Your task to perform on an android device: Search for pizza restaurants on Maps Image 0: 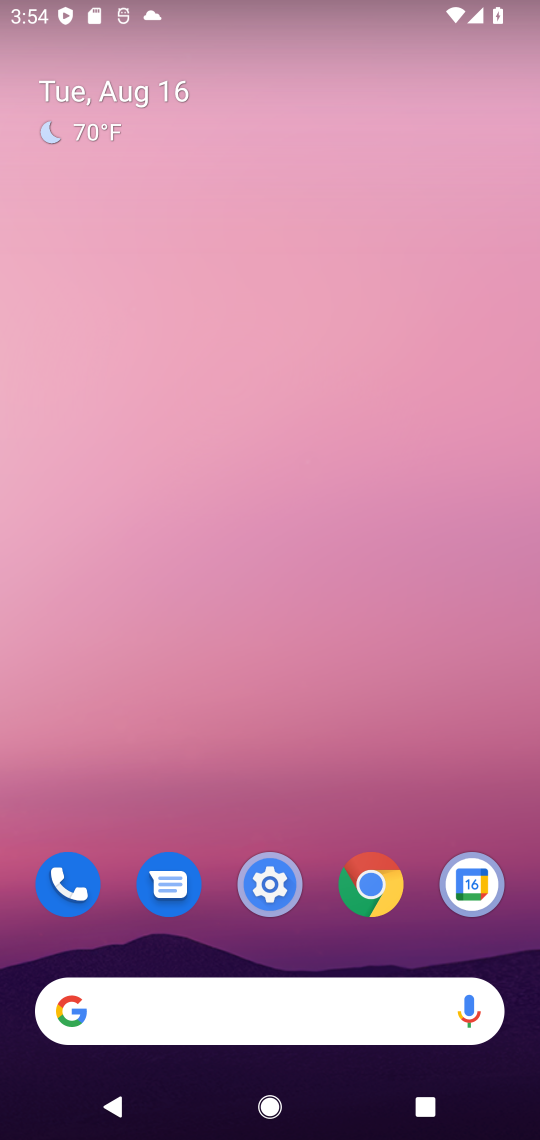
Step 0: drag from (297, 823) to (260, 254)
Your task to perform on an android device: Search for pizza restaurants on Maps Image 1: 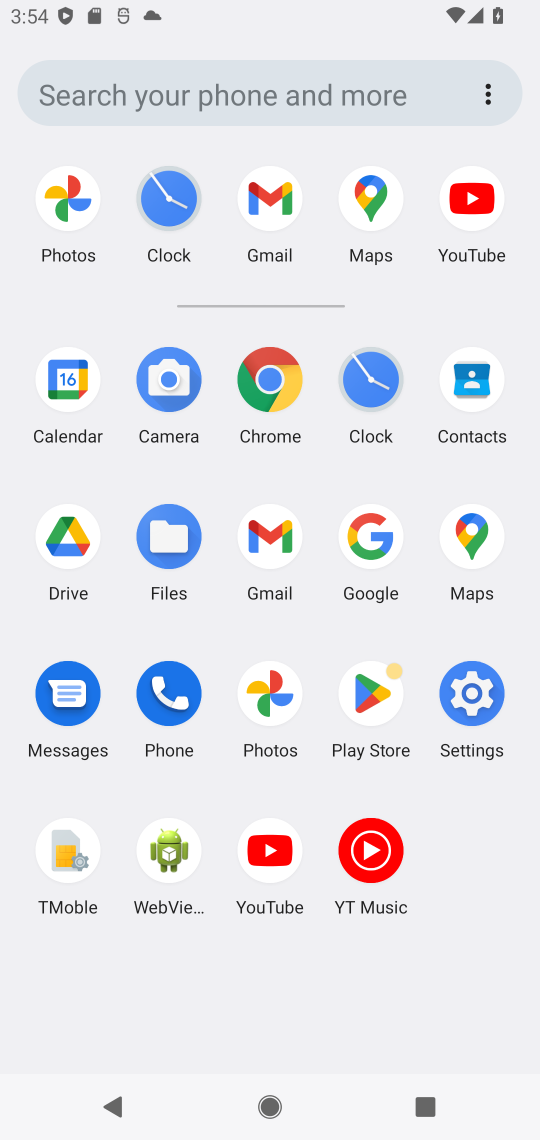
Step 1: click (375, 211)
Your task to perform on an android device: Search for pizza restaurants on Maps Image 2: 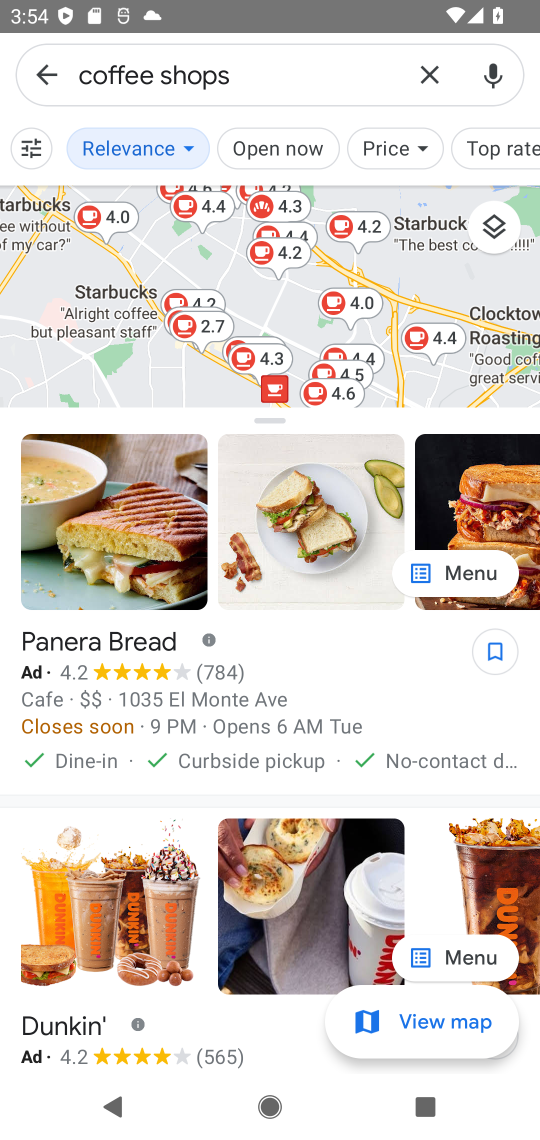
Step 2: click (421, 72)
Your task to perform on an android device: Search for pizza restaurants on Maps Image 3: 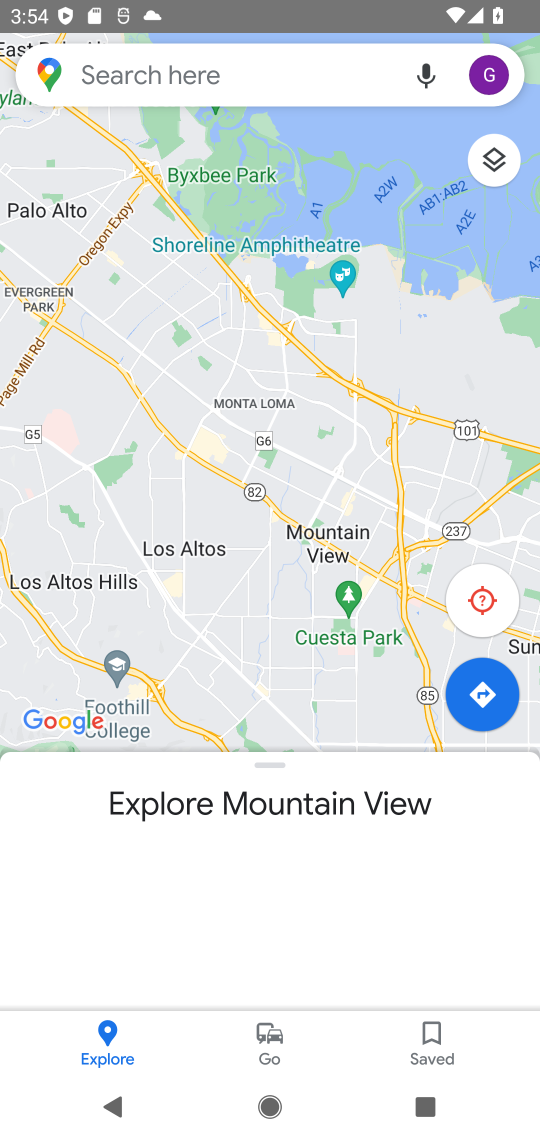
Step 3: click (312, 68)
Your task to perform on an android device: Search for pizza restaurants on Maps Image 4: 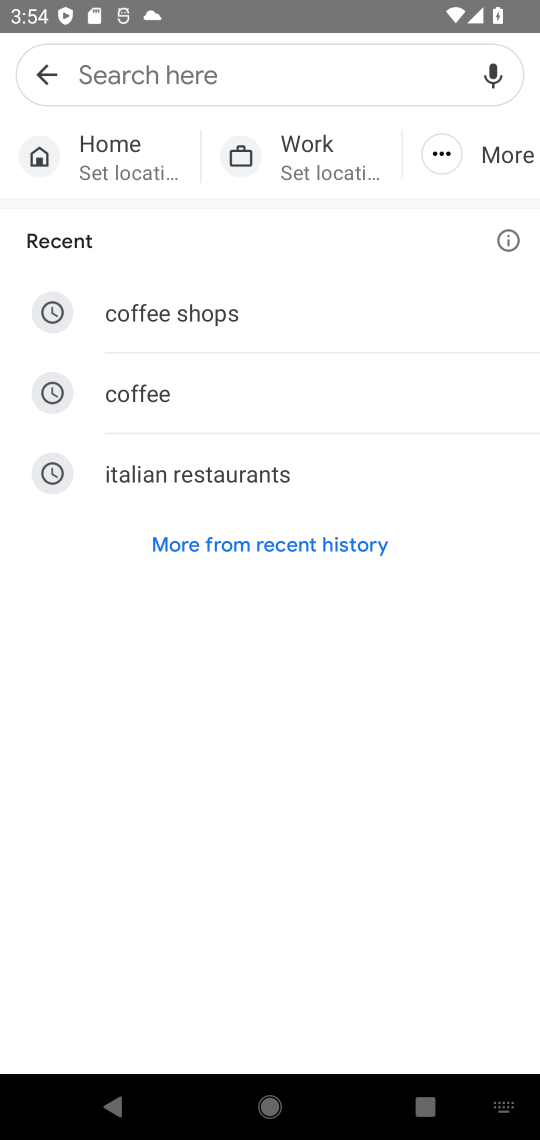
Step 4: type "pizza restaurants"
Your task to perform on an android device: Search for pizza restaurants on Maps Image 5: 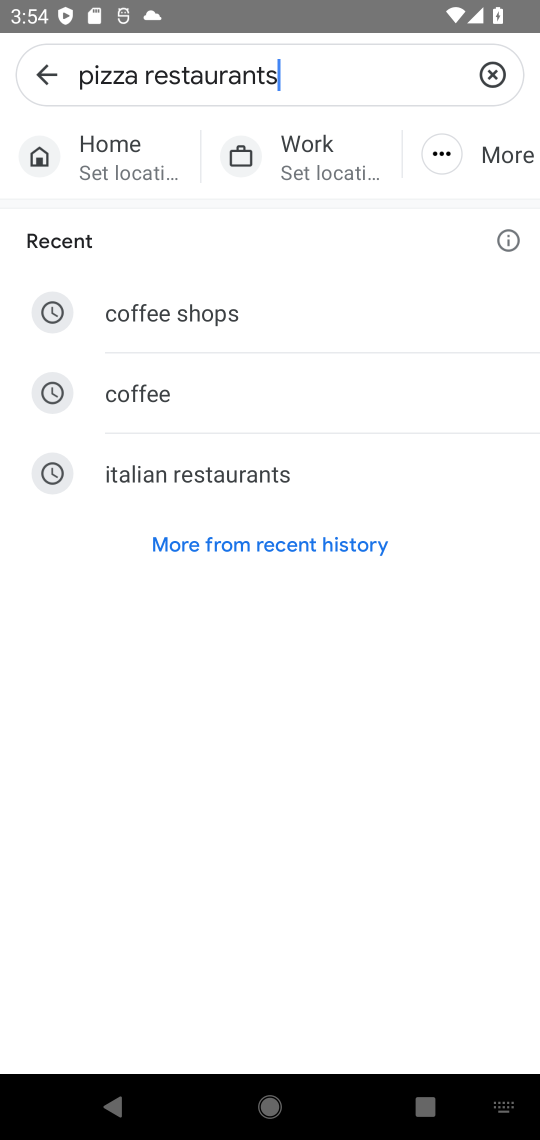
Step 5: type ""
Your task to perform on an android device: Search for pizza restaurants on Maps Image 6: 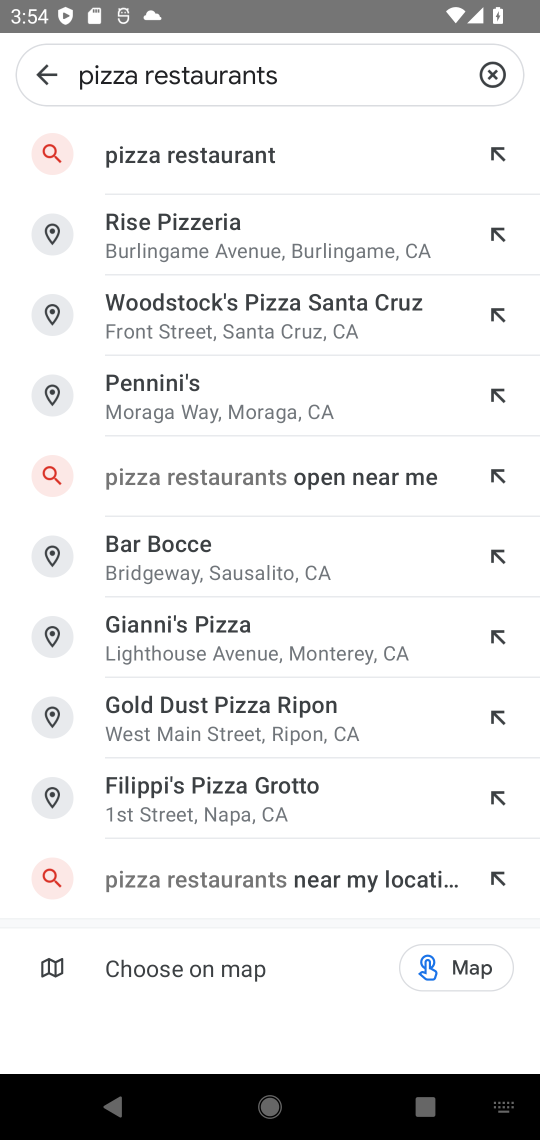
Step 6: click (249, 158)
Your task to perform on an android device: Search for pizza restaurants on Maps Image 7: 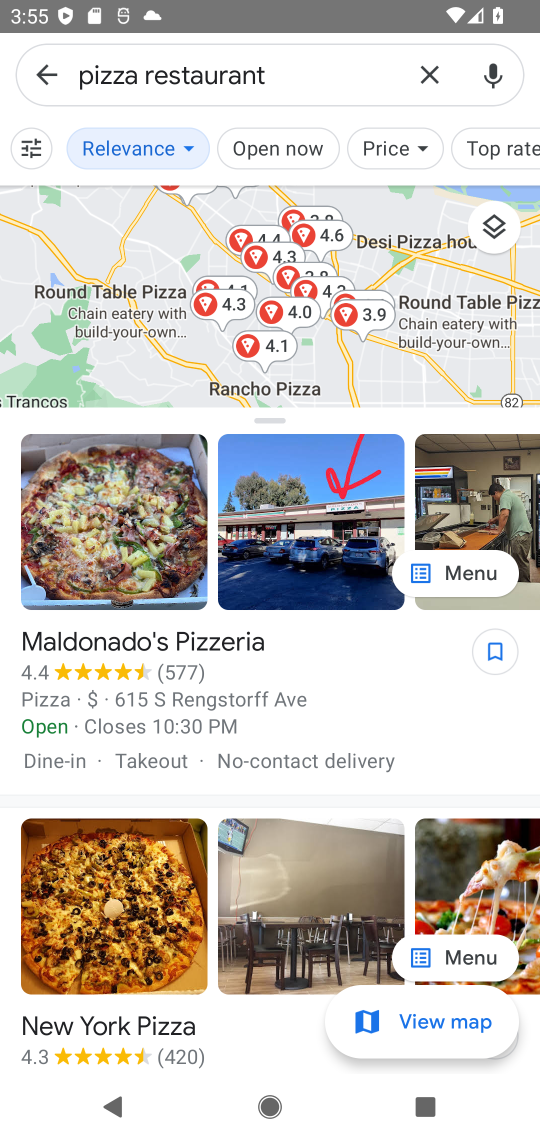
Step 7: task complete